Your task to perform on an android device: turn on bluetooth scan Image 0: 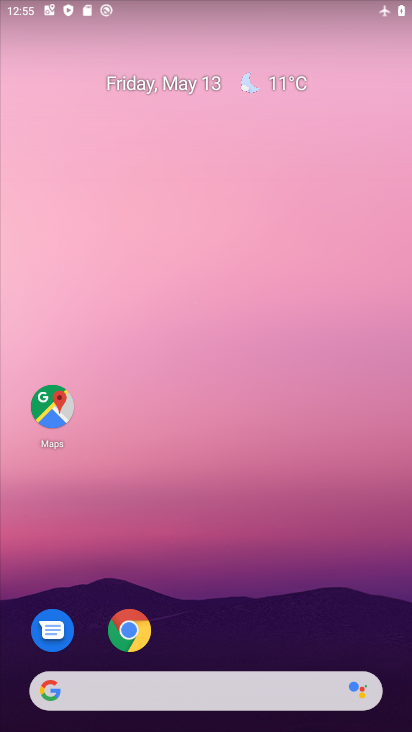
Step 0: drag from (368, 645) to (369, 0)
Your task to perform on an android device: turn on bluetooth scan Image 1: 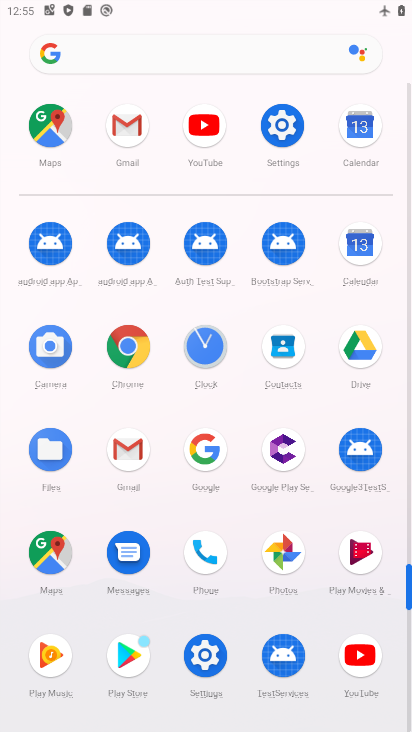
Step 1: click (278, 129)
Your task to perform on an android device: turn on bluetooth scan Image 2: 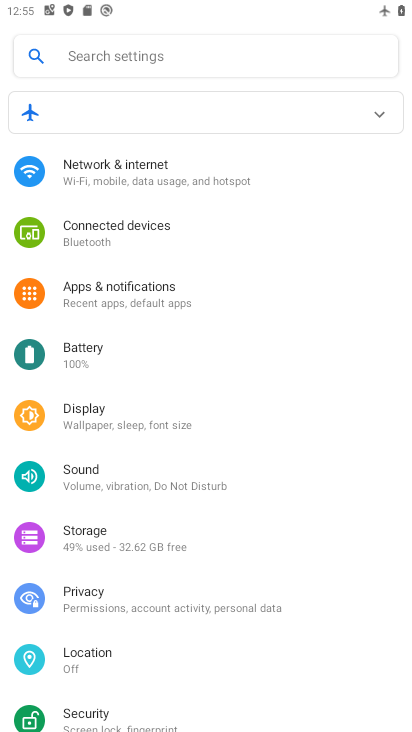
Step 2: click (98, 652)
Your task to perform on an android device: turn on bluetooth scan Image 3: 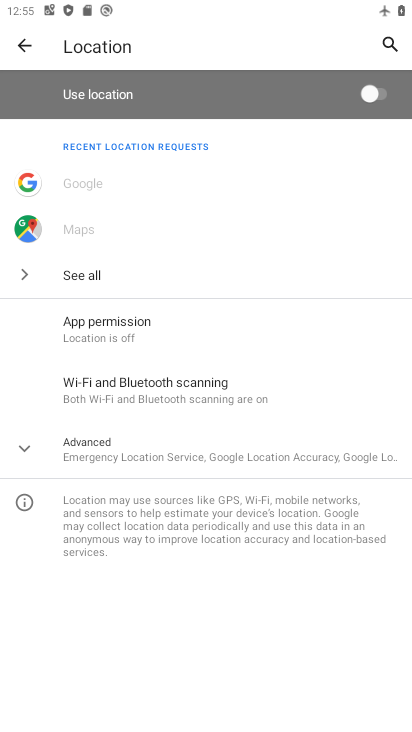
Step 3: click (136, 395)
Your task to perform on an android device: turn on bluetooth scan Image 4: 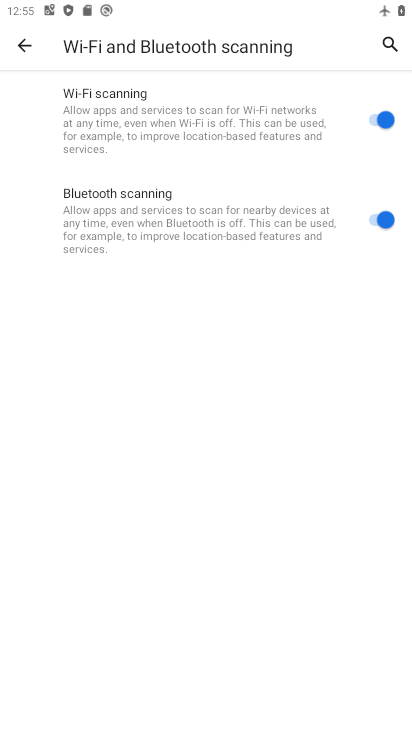
Step 4: task complete